Your task to perform on an android device: Open settings on Google Maps Image 0: 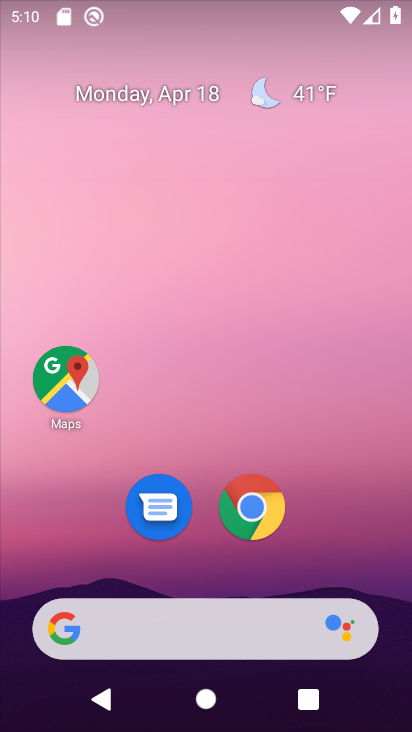
Step 0: drag from (329, 522) to (334, 101)
Your task to perform on an android device: Open settings on Google Maps Image 1: 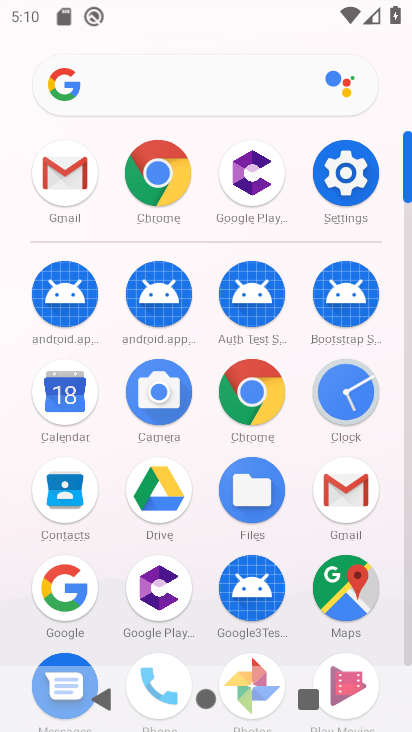
Step 1: click (346, 597)
Your task to perform on an android device: Open settings on Google Maps Image 2: 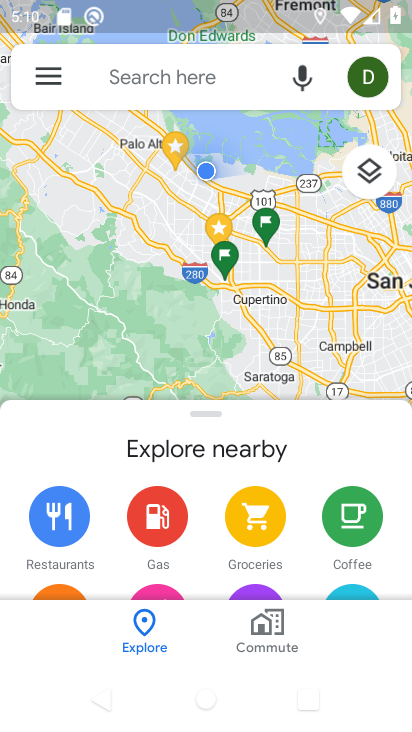
Step 2: click (57, 72)
Your task to perform on an android device: Open settings on Google Maps Image 3: 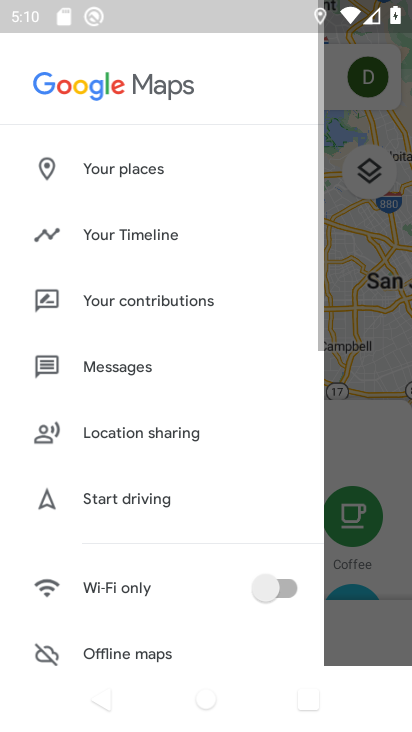
Step 3: drag from (190, 662) to (189, 193)
Your task to perform on an android device: Open settings on Google Maps Image 4: 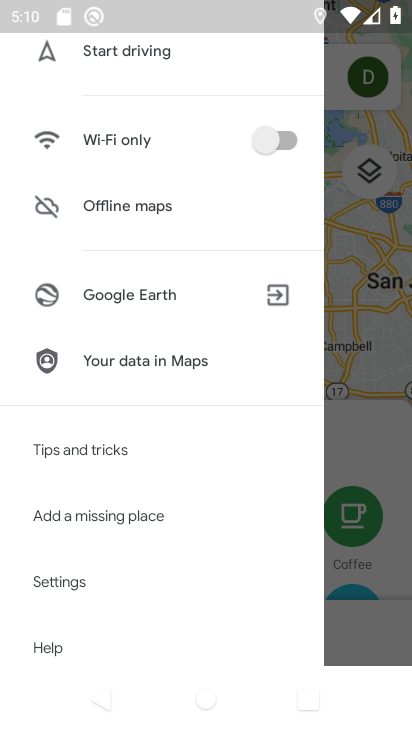
Step 4: click (140, 581)
Your task to perform on an android device: Open settings on Google Maps Image 5: 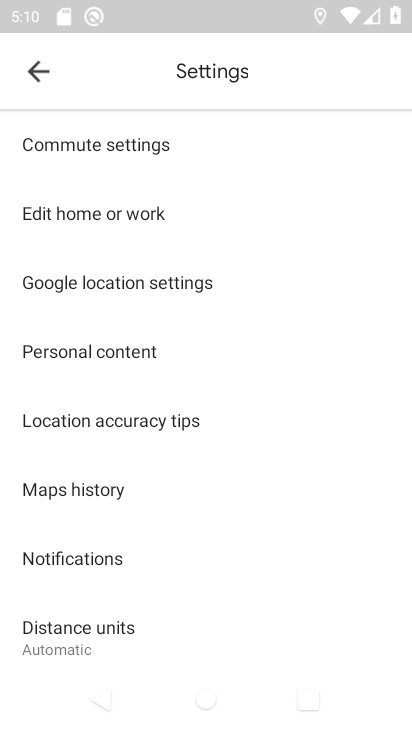
Step 5: task complete